Your task to perform on an android device: Open calendar and show me the second week of next month Image 0: 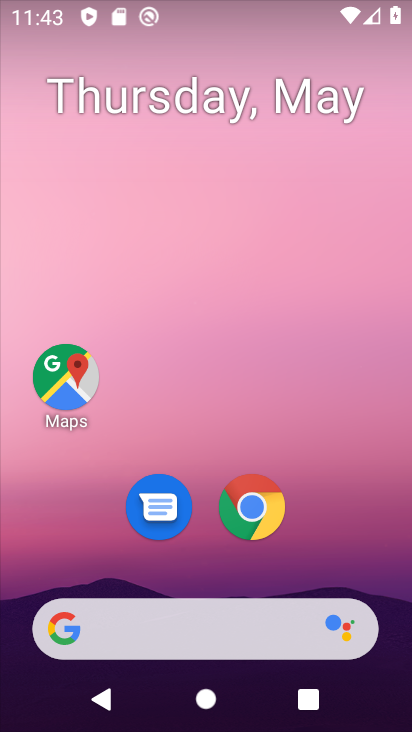
Step 0: drag from (257, 623) to (333, 15)
Your task to perform on an android device: Open calendar and show me the second week of next month Image 1: 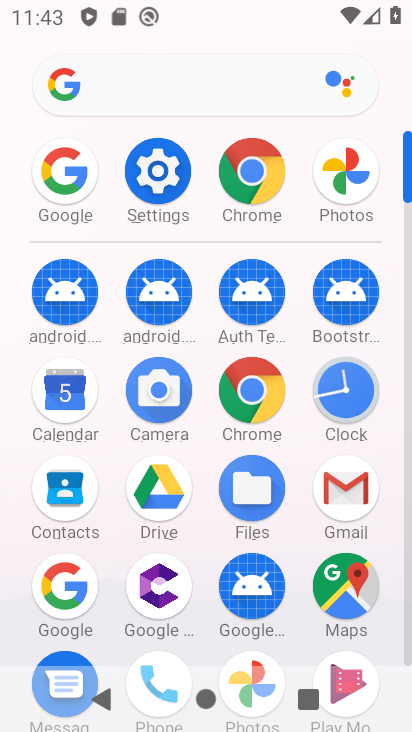
Step 1: click (79, 399)
Your task to perform on an android device: Open calendar and show me the second week of next month Image 2: 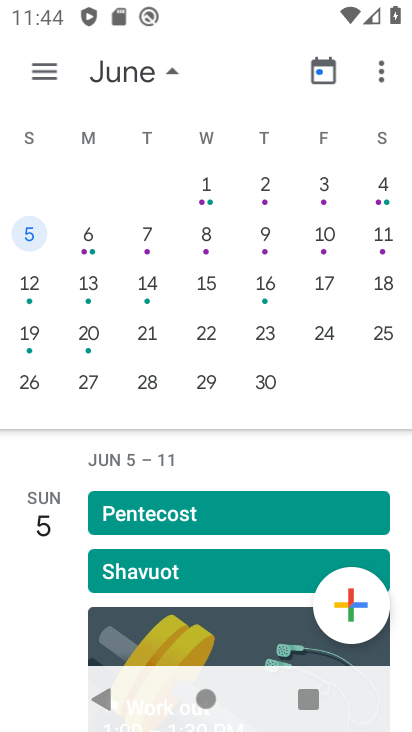
Step 2: task complete